Your task to perform on an android device: Open internet settings Image 0: 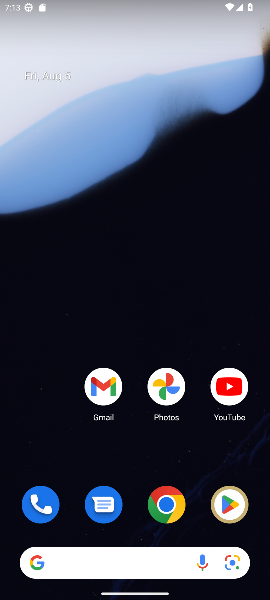
Step 0: drag from (137, 562) to (114, 74)
Your task to perform on an android device: Open internet settings Image 1: 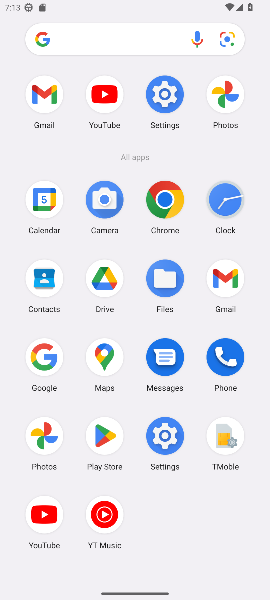
Step 1: click (170, 440)
Your task to perform on an android device: Open internet settings Image 2: 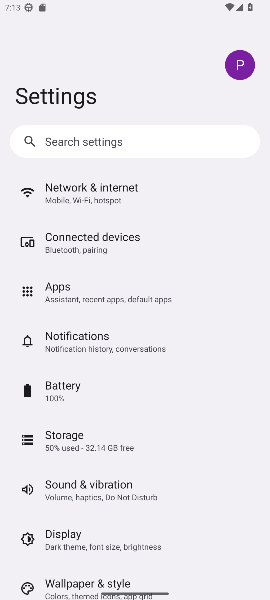
Step 2: click (100, 192)
Your task to perform on an android device: Open internet settings Image 3: 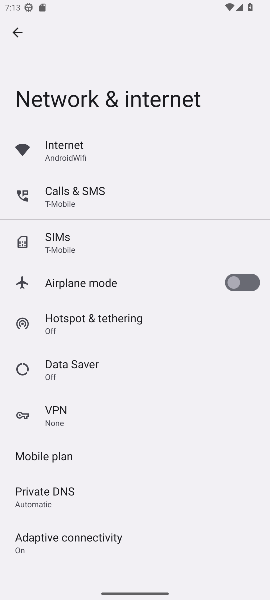
Step 3: click (107, 142)
Your task to perform on an android device: Open internet settings Image 4: 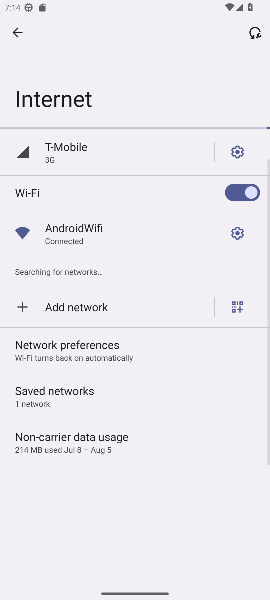
Step 4: task complete